Your task to perform on an android device: manage bookmarks in the chrome app Image 0: 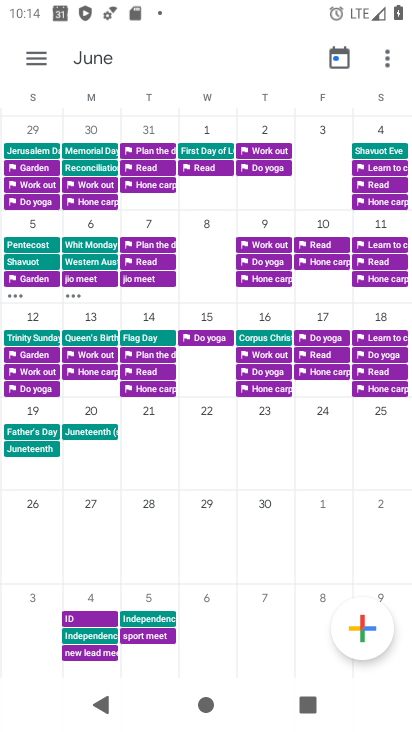
Step 0: press home button
Your task to perform on an android device: manage bookmarks in the chrome app Image 1: 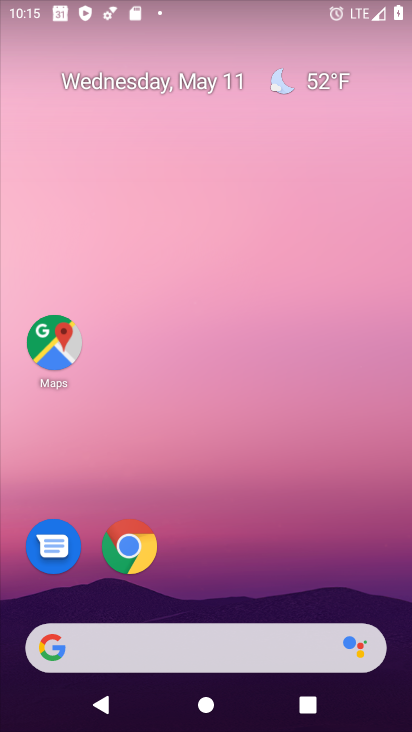
Step 1: click (139, 552)
Your task to perform on an android device: manage bookmarks in the chrome app Image 2: 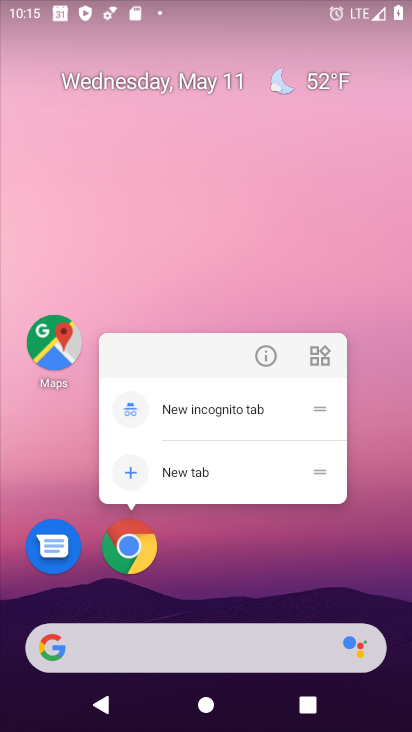
Step 2: click (139, 570)
Your task to perform on an android device: manage bookmarks in the chrome app Image 3: 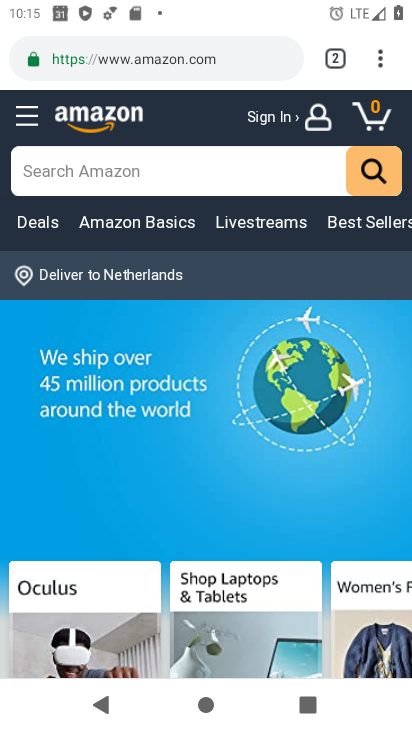
Step 3: drag from (393, 54) to (232, 276)
Your task to perform on an android device: manage bookmarks in the chrome app Image 4: 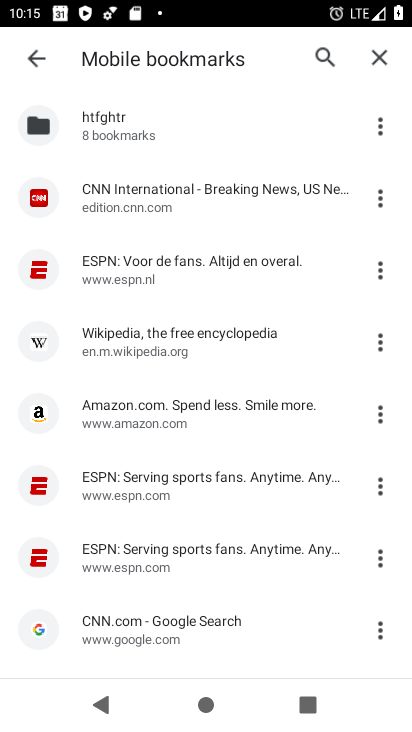
Step 4: click (387, 353)
Your task to perform on an android device: manage bookmarks in the chrome app Image 5: 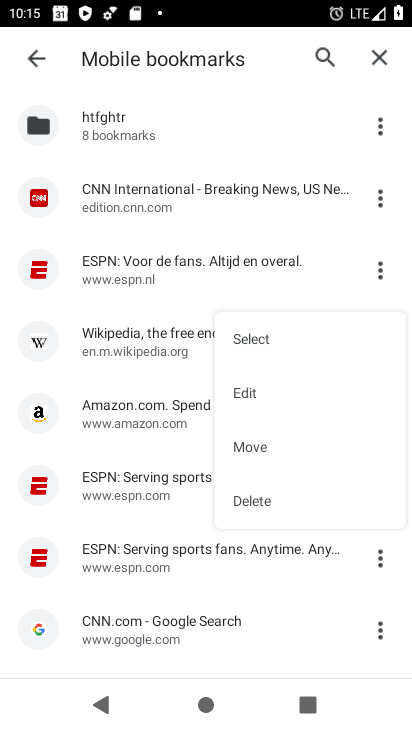
Step 5: click (267, 495)
Your task to perform on an android device: manage bookmarks in the chrome app Image 6: 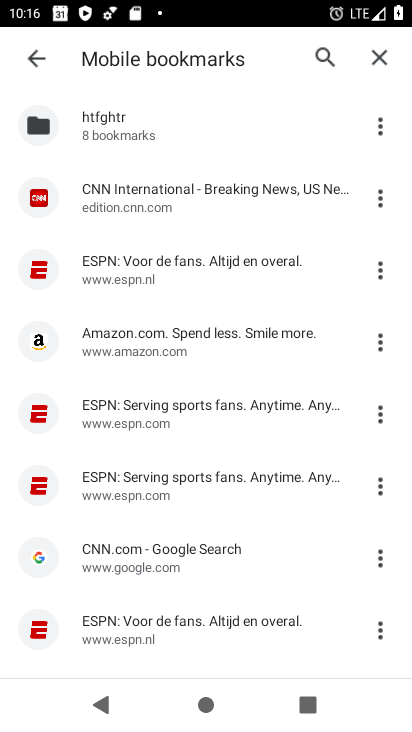
Step 6: task complete